Your task to perform on an android device: Search for the best books of all time on Goodreads Image 0: 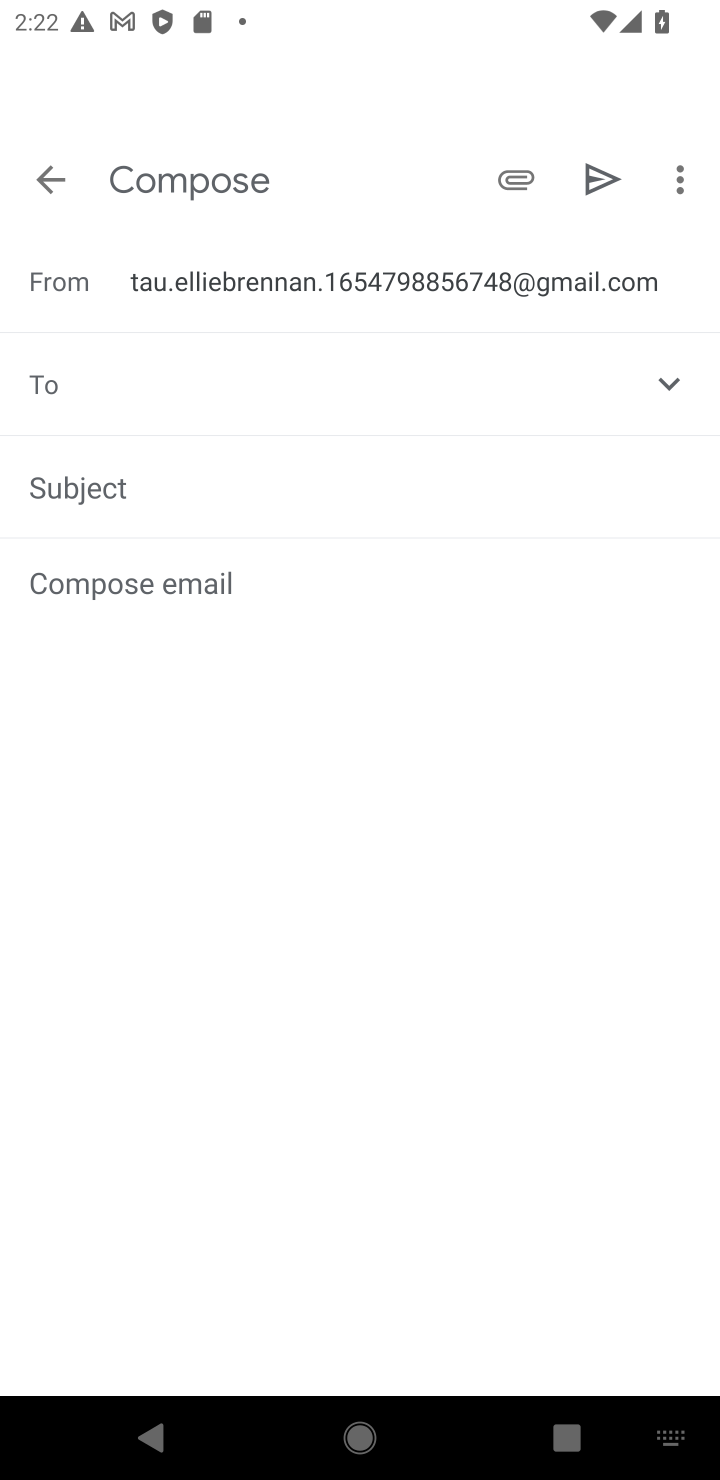
Step 0: press home button
Your task to perform on an android device: Search for the best books of all time on Goodreads Image 1: 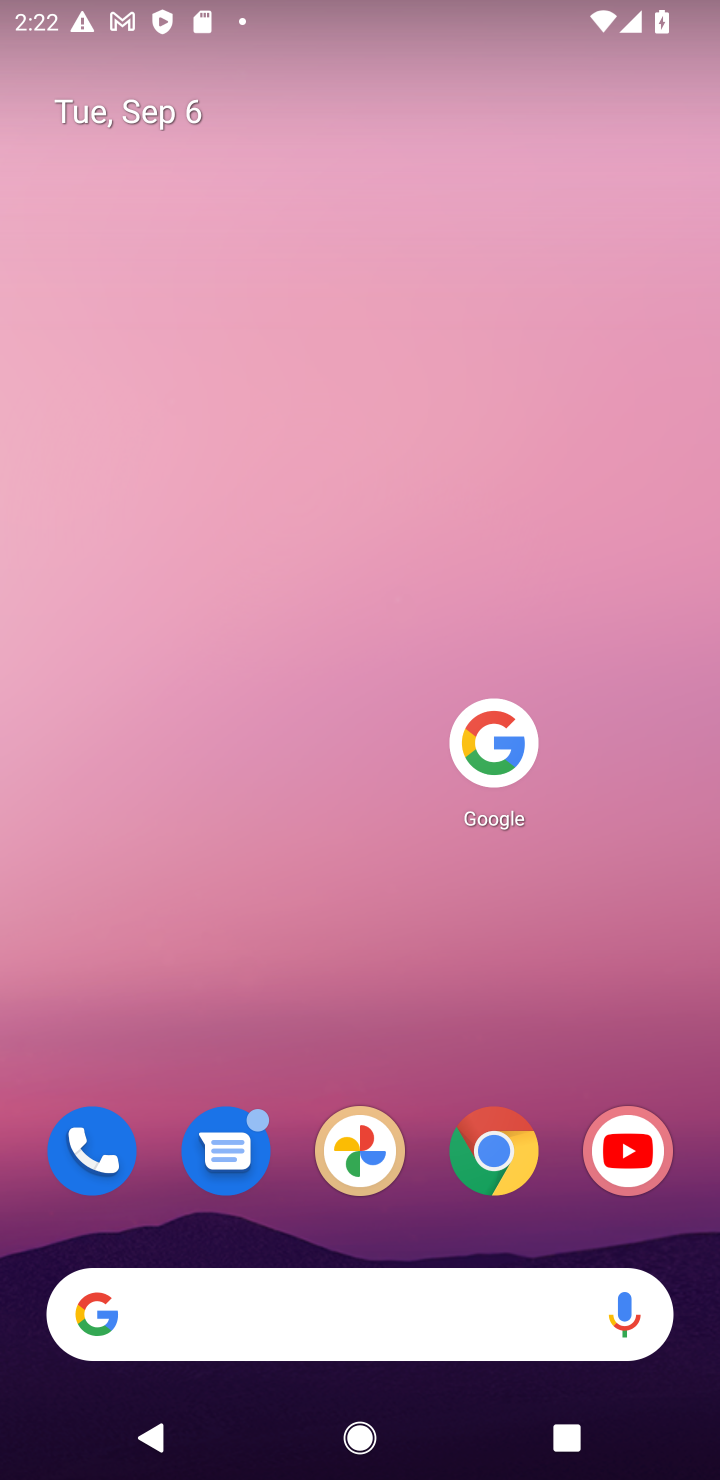
Step 1: click (494, 730)
Your task to perform on an android device: Search for the best books of all time on Goodreads Image 2: 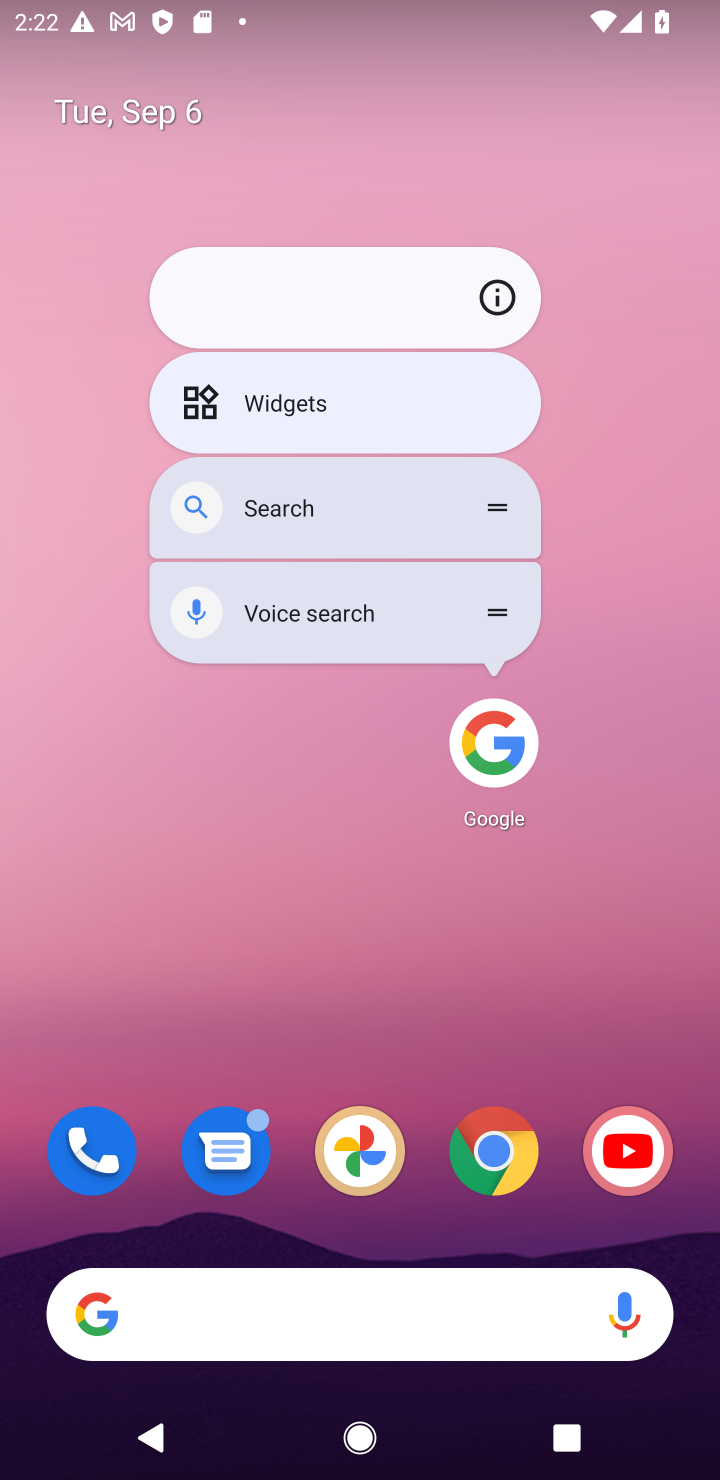
Step 2: click (494, 730)
Your task to perform on an android device: Search for the best books of all time on Goodreads Image 3: 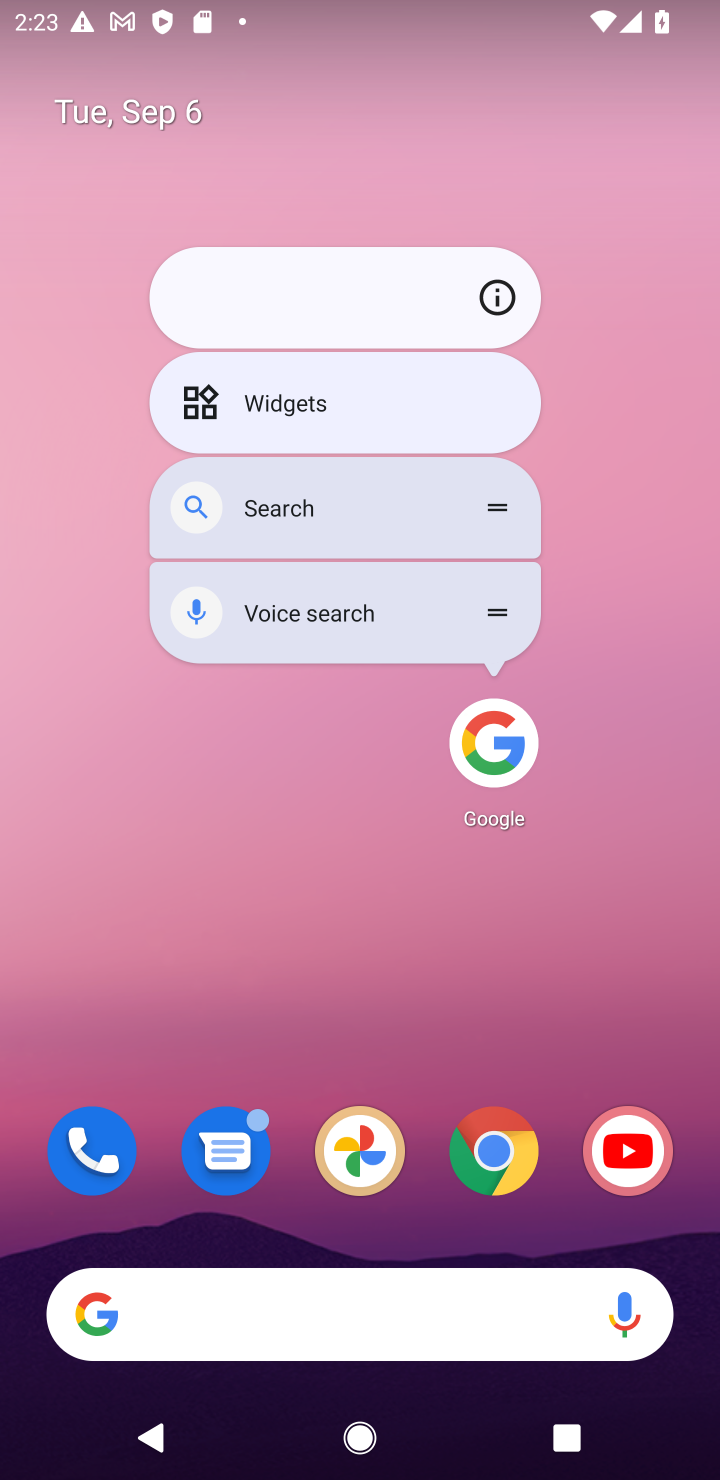
Step 3: click (503, 750)
Your task to perform on an android device: Search for the best books of all time on Goodreads Image 4: 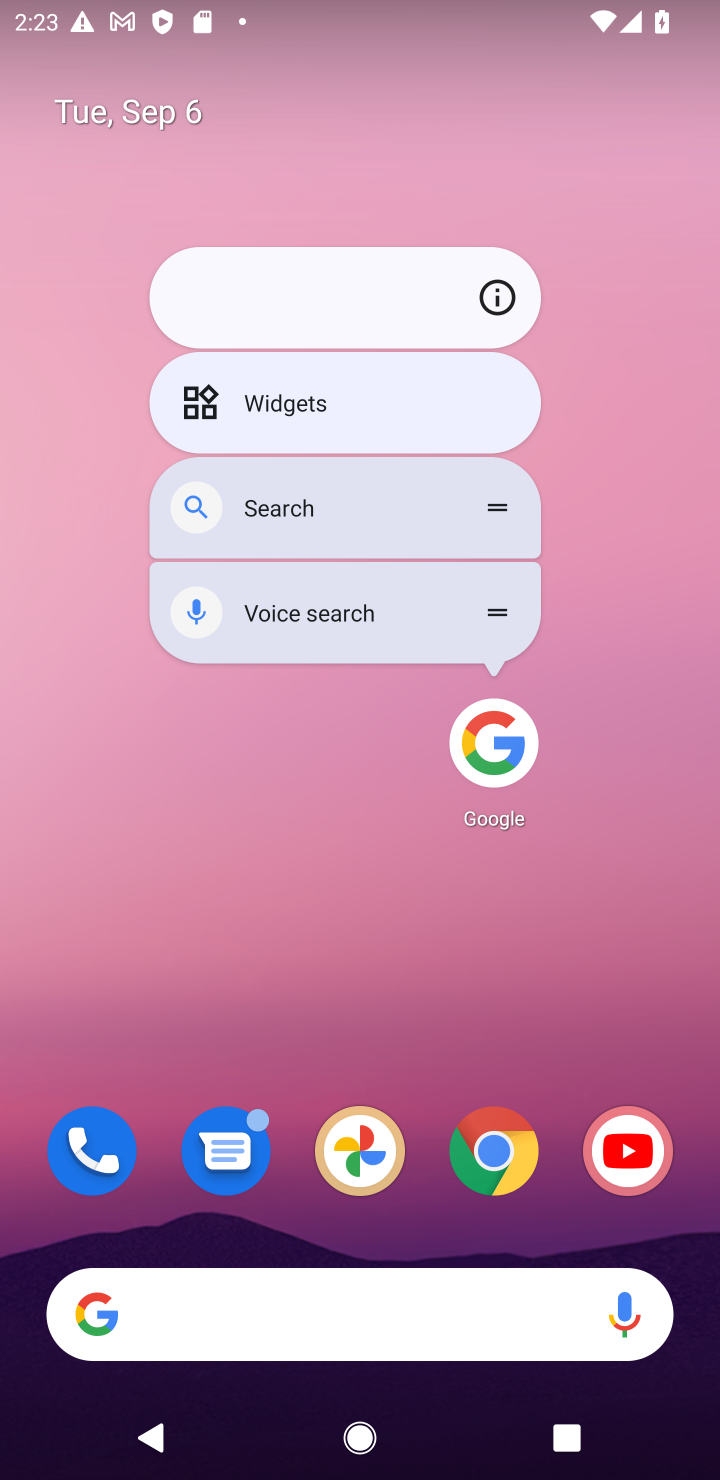
Step 4: click (513, 739)
Your task to perform on an android device: Search for the best books of all time on Goodreads Image 5: 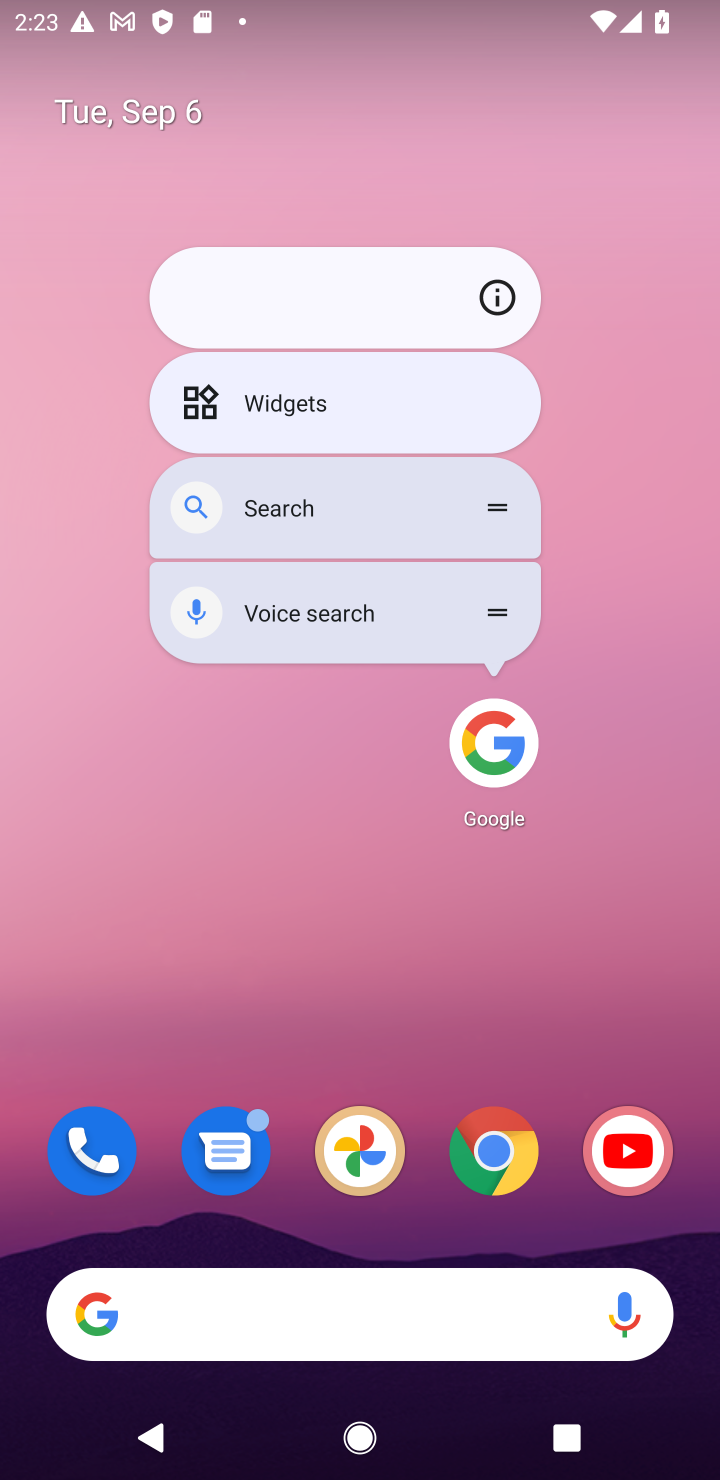
Step 5: click (495, 735)
Your task to perform on an android device: Search for the best books of all time on Goodreads Image 6: 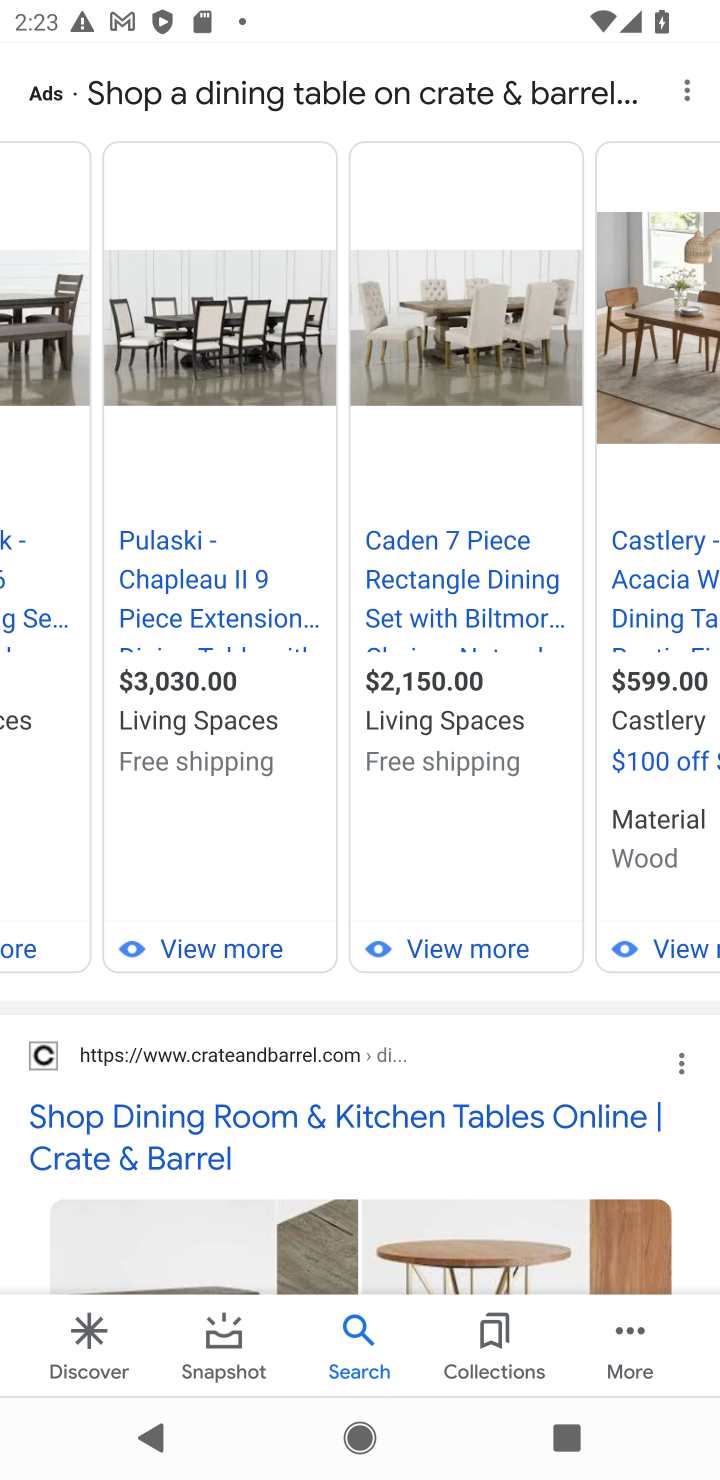
Step 6: drag from (352, 756) to (341, 1015)
Your task to perform on an android device: Search for the best books of all time on Goodreads Image 7: 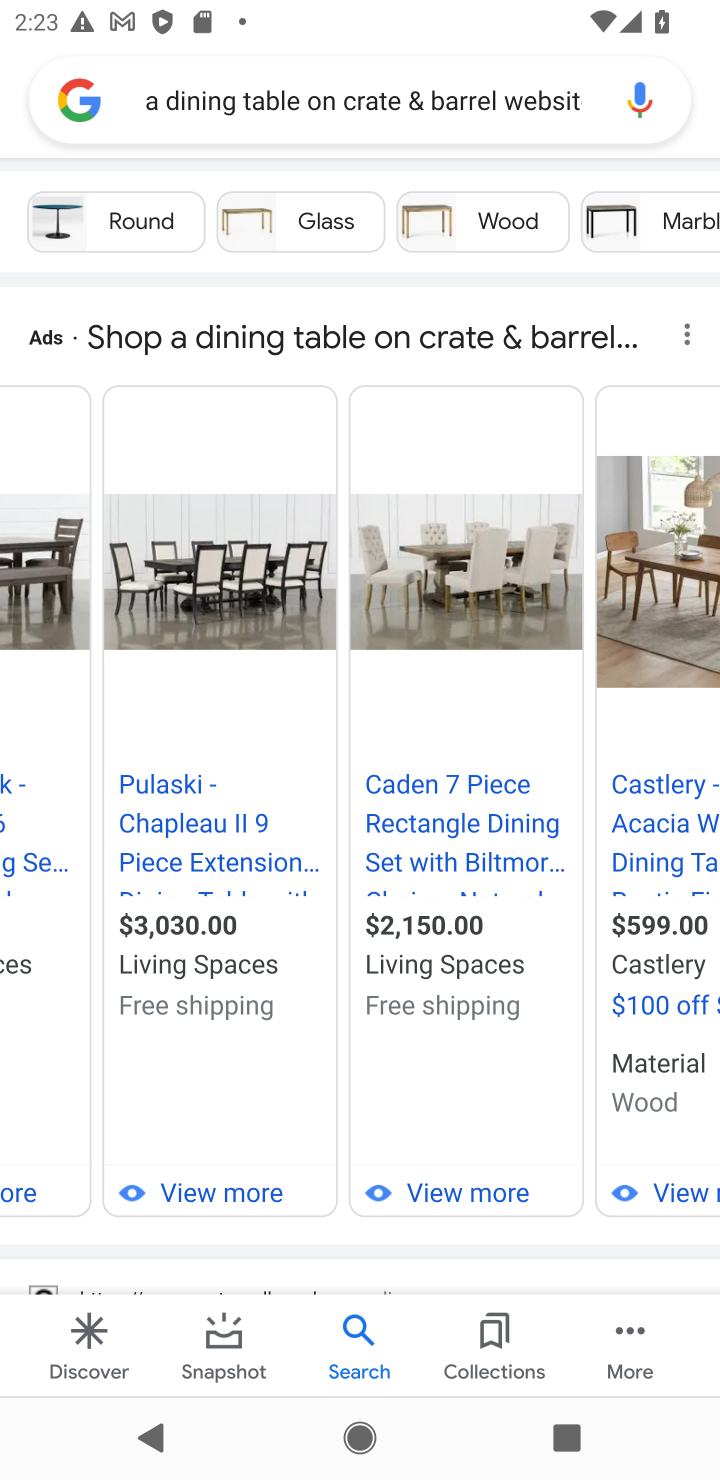
Step 7: drag from (256, 1048) to (240, 1227)
Your task to perform on an android device: Search for the best books of all time on Goodreads Image 8: 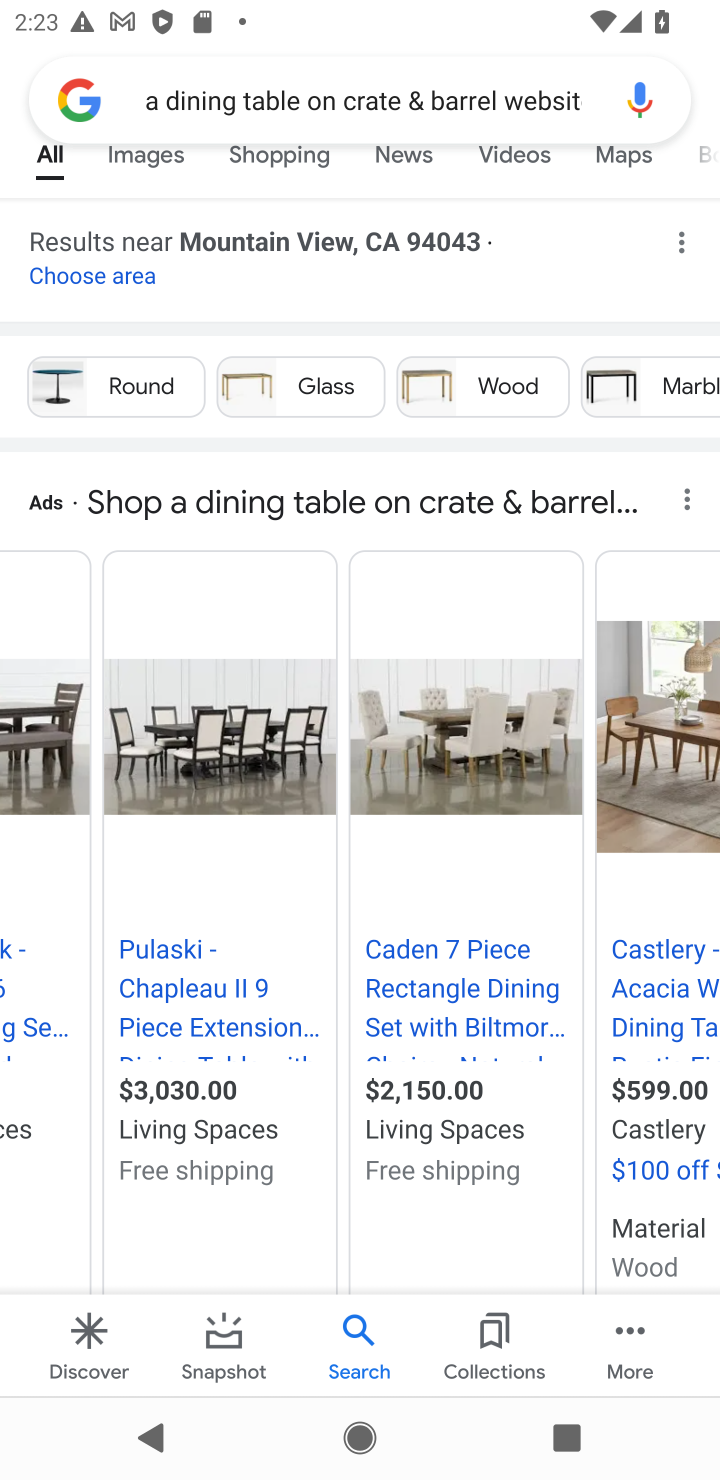
Step 8: click (314, 103)
Your task to perform on an android device: Search for the best books of all time on Goodreads Image 9: 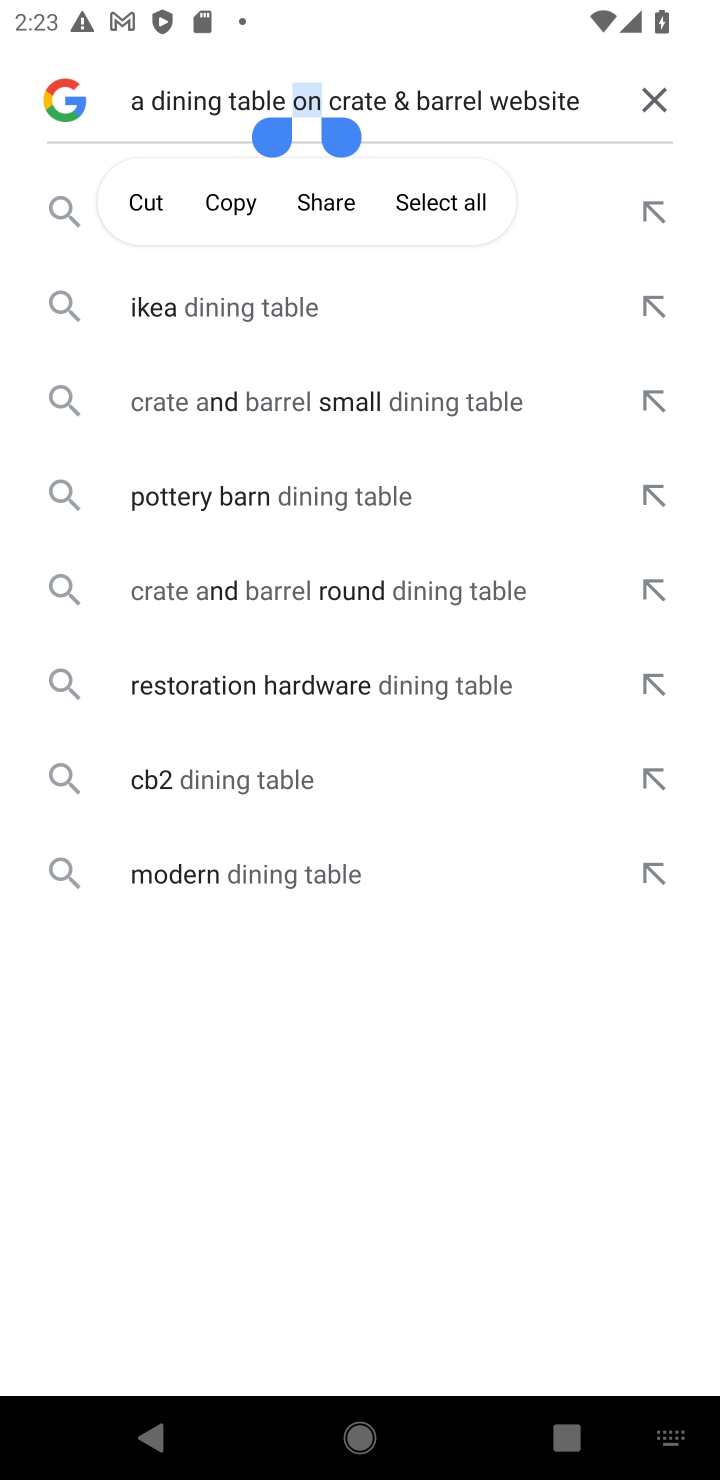
Step 9: click (662, 91)
Your task to perform on an android device: Search for the best books of all time on Goodreads Image 10: 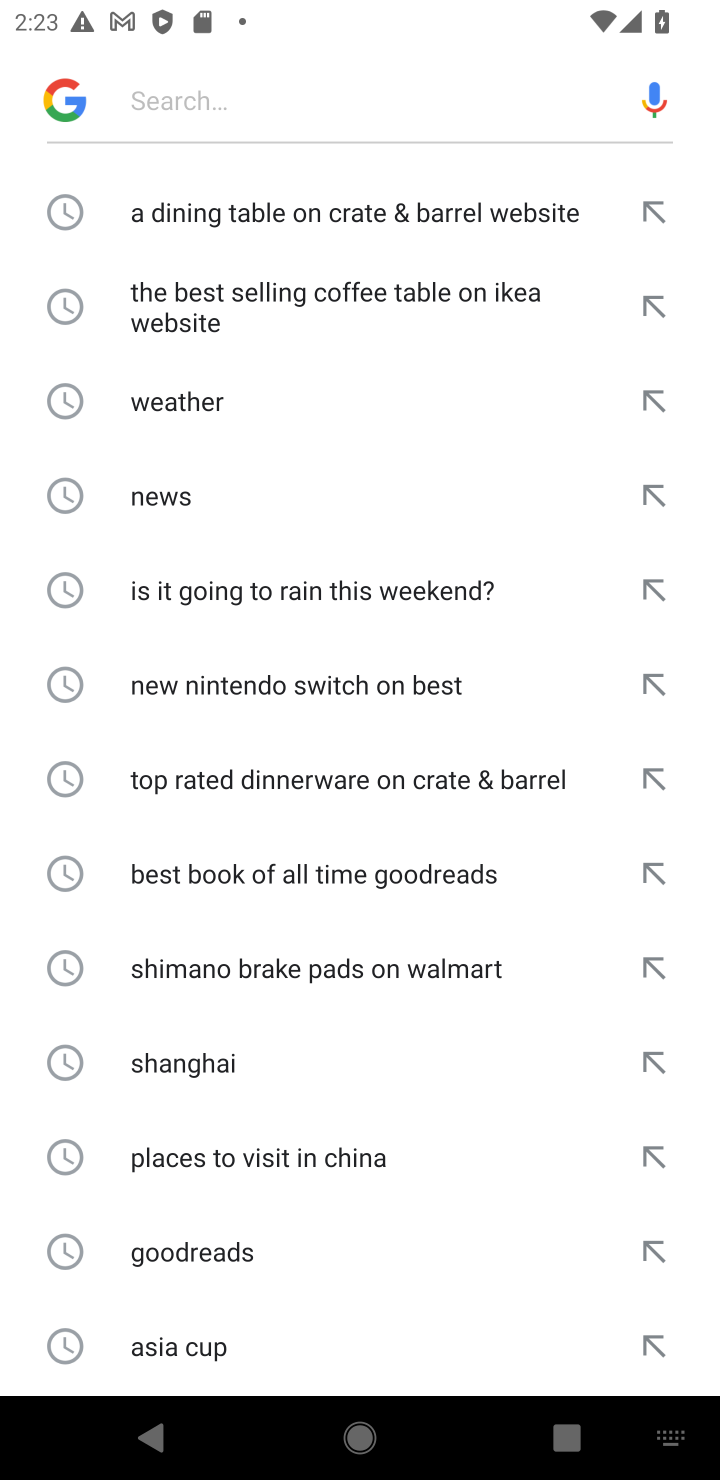
Step 10: click (427, 54)
Your task to perform on an android device: Search for the best books of all time on Goodreads Image 11: 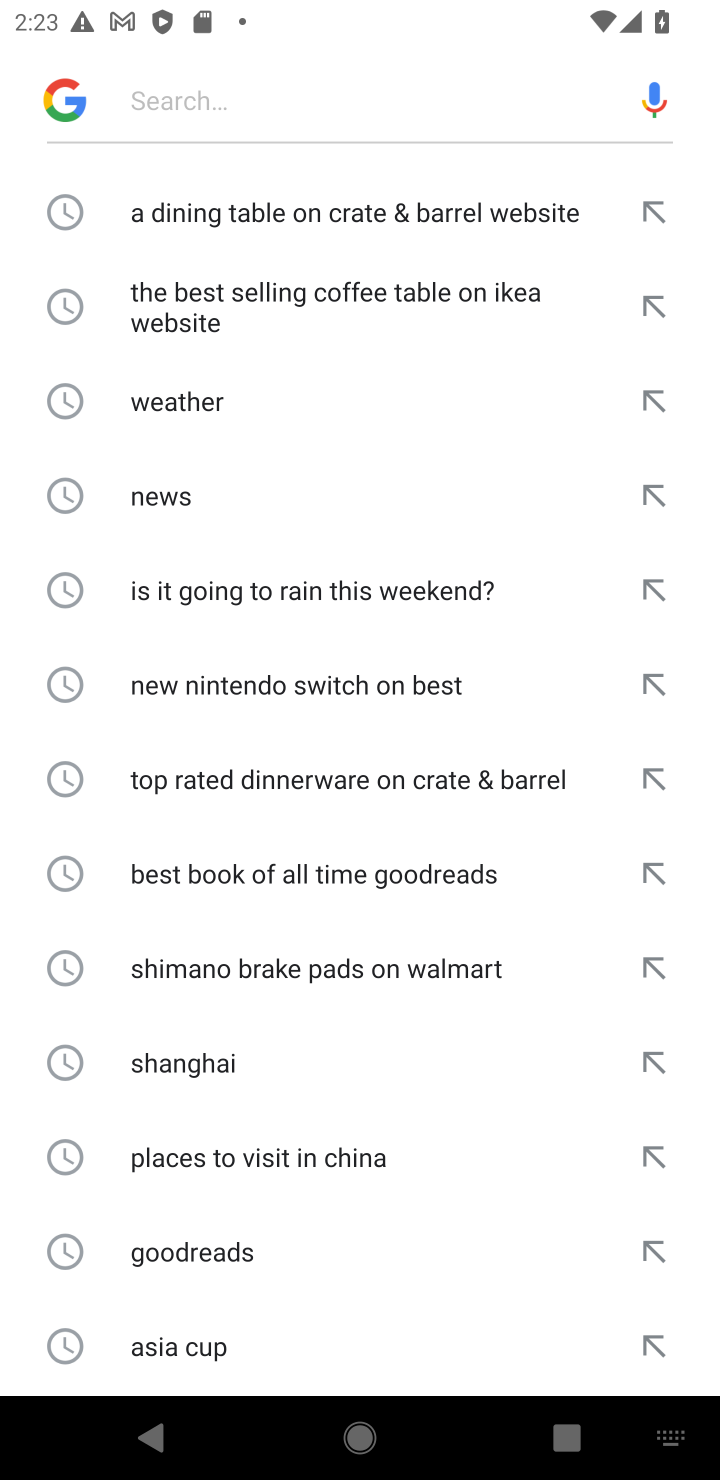
Step 11: type " the best books of all time on Goodread "
Your task to perform on an android device: Search for the best books of all time on Goodreads Image 12: 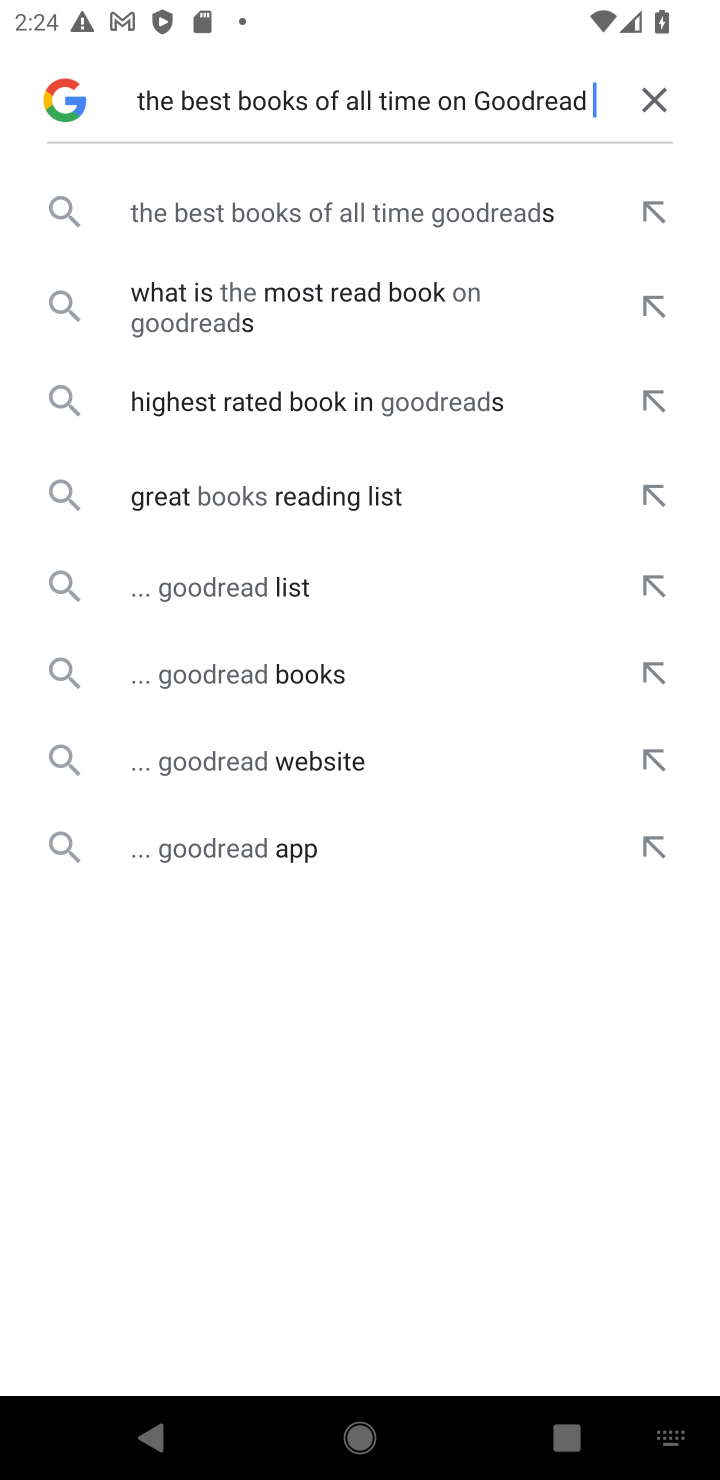
Step 12: click (209, 214)
Your task to perform on an android device: Search for the best books of all time on Goodreads Image 13: 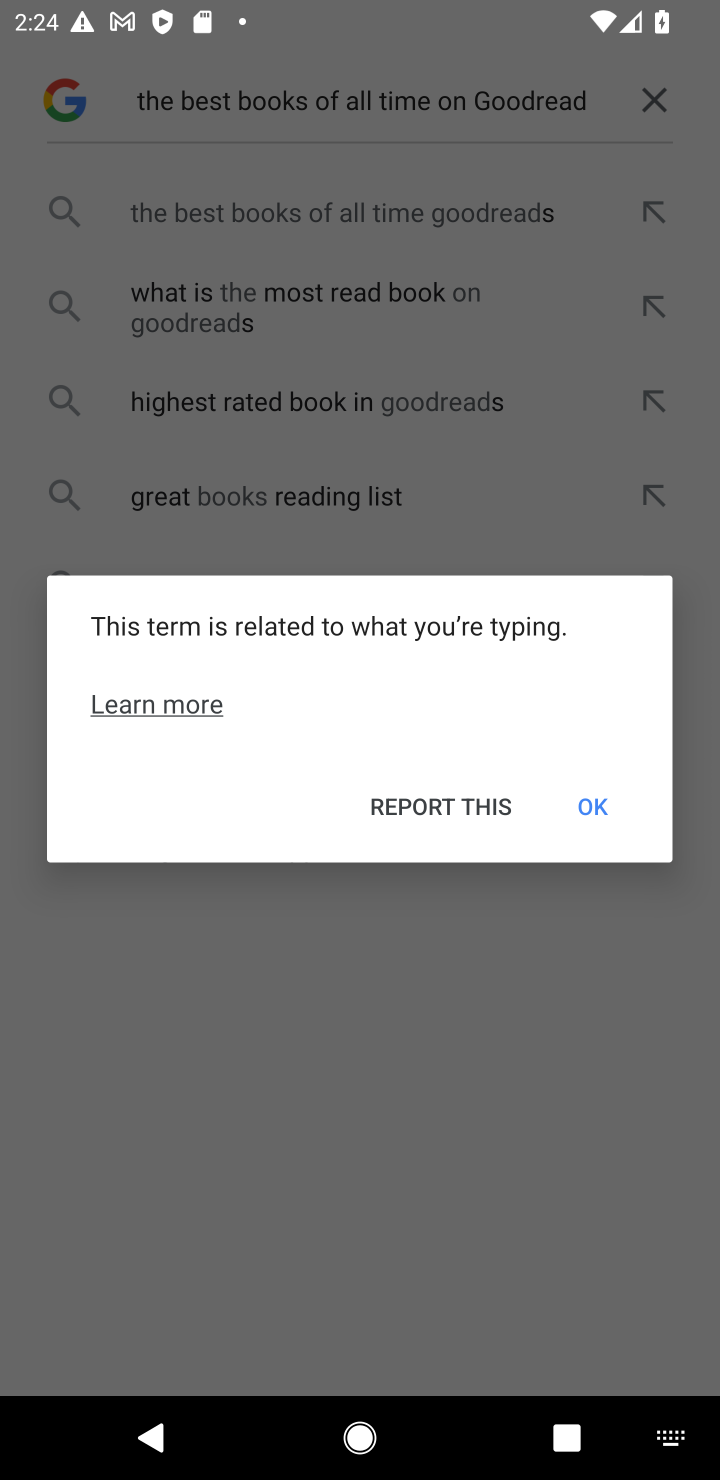
Step 13: click (596, 812)
Your task to perform on an android device: Search for the best books of all time on Goodreads Image 14: 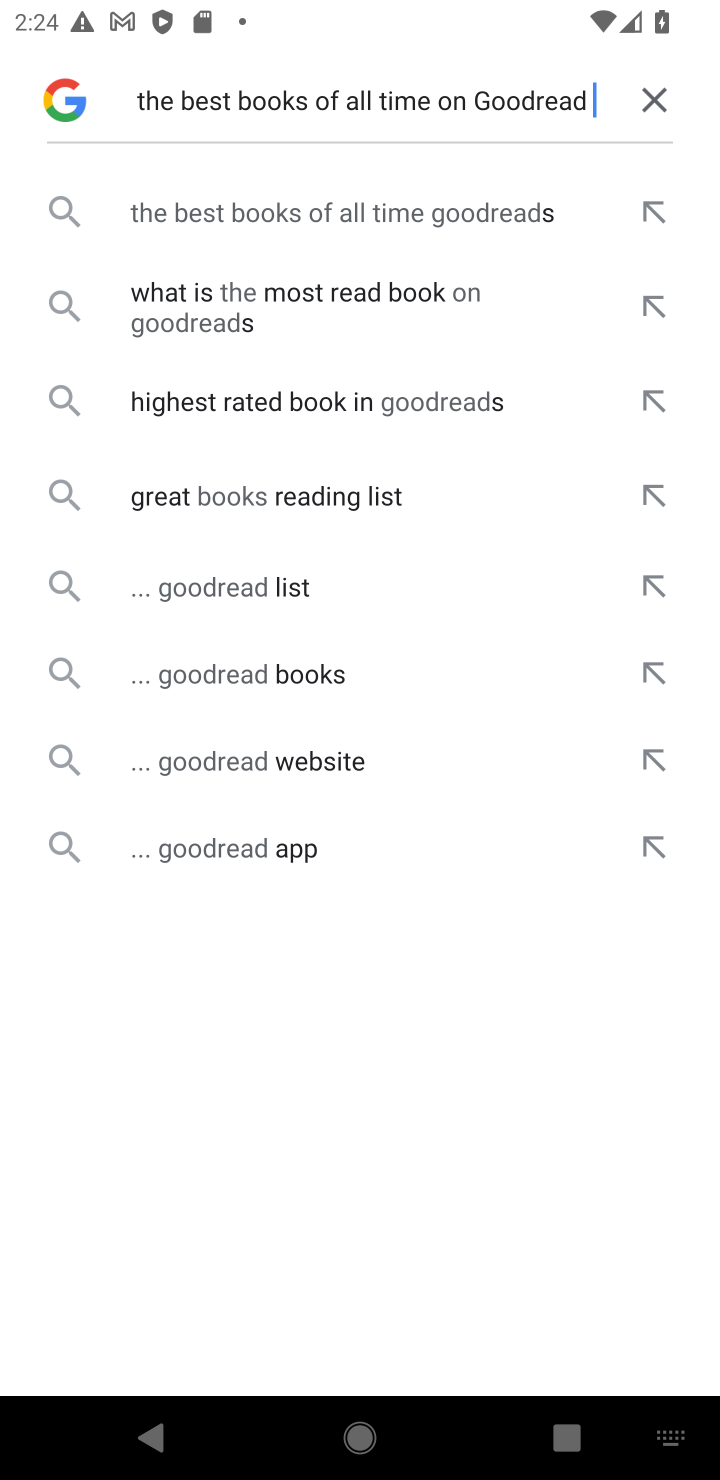
Step 14: click (255, 469)
Your task to perform on an android device: Search for the best books of all time on Goodreads Image 15: 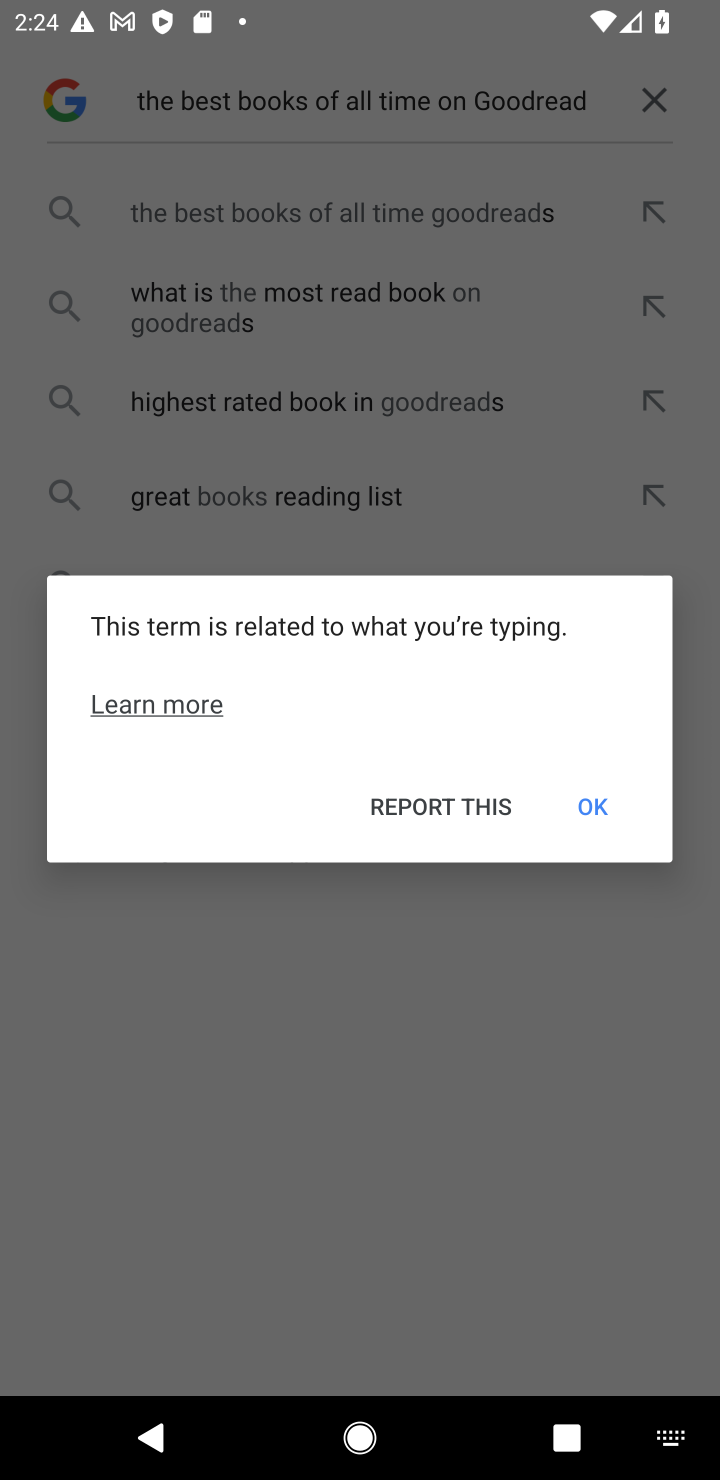
Step 15: click (642, 813)
Your task to perform on an android device: Search for the best books of all time on Goodreads Image 16: 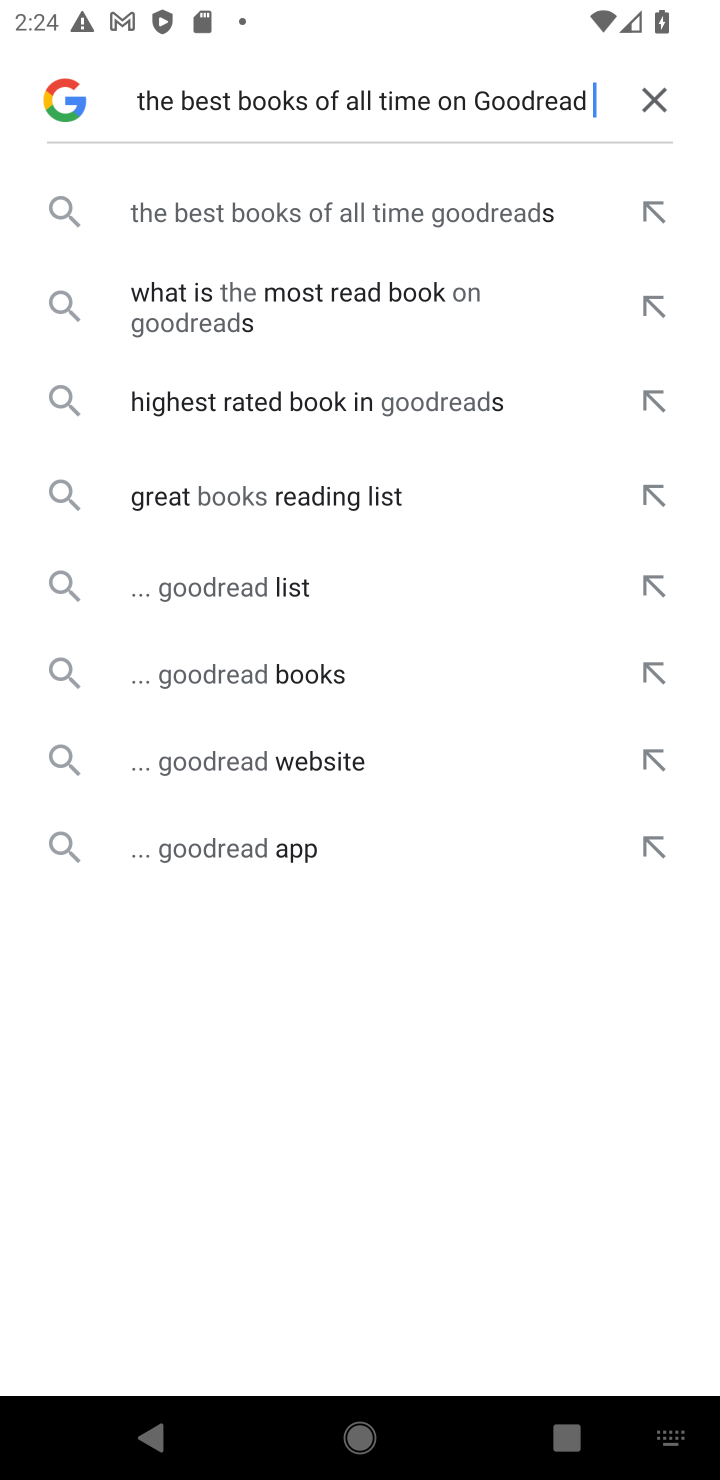
Step 16: click (216, 400)
Your task to perform on an android device: Search for the best books of all time on Goodreads Image 17: 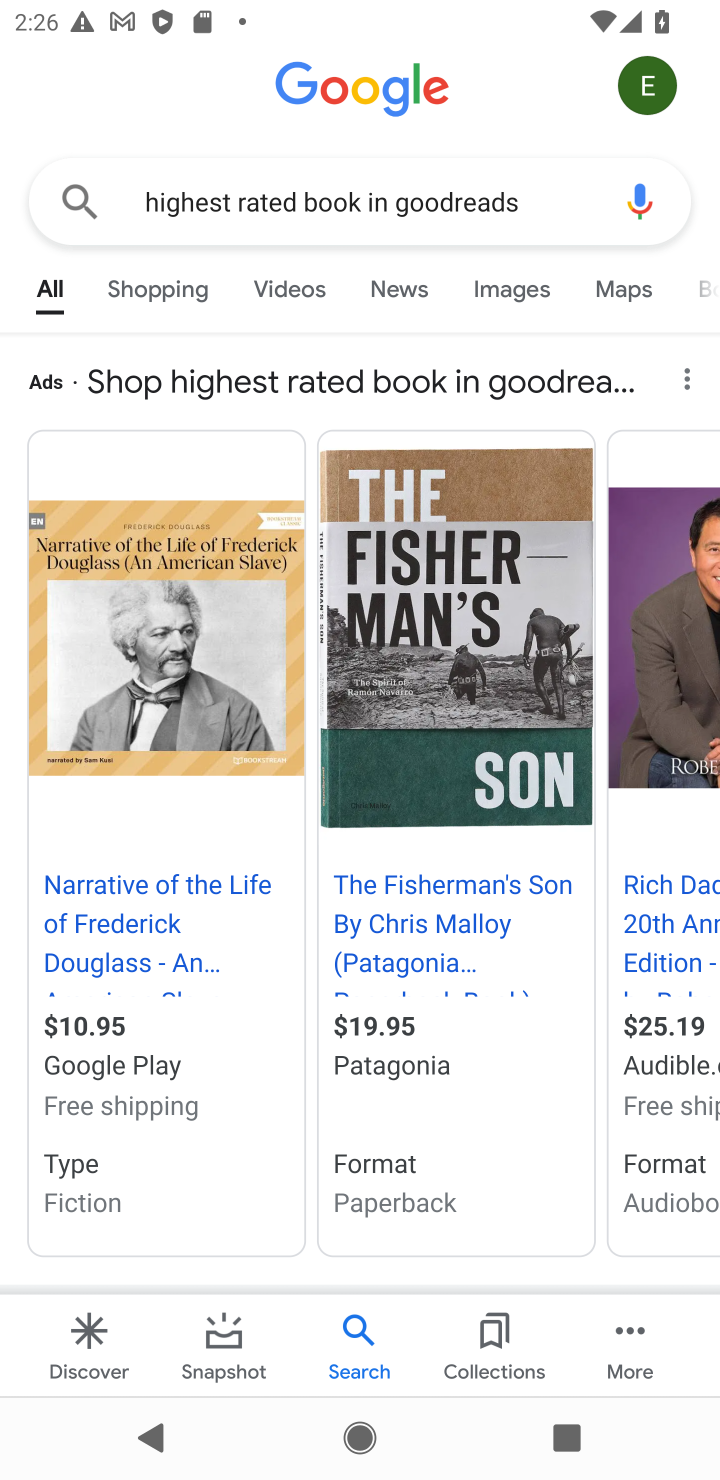
Step 17: task complete